Your task to perform on an android device: turn on location history Image 0: 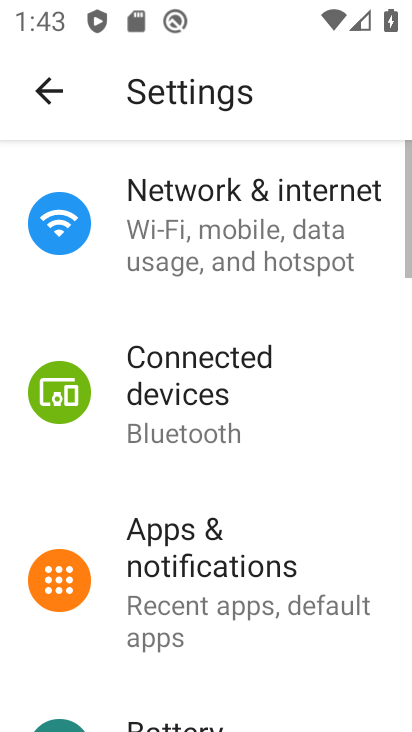
Step 0: drag from (268, 627) to (252, 175)
Your task to perform on an android device: turn on location history Image 1: 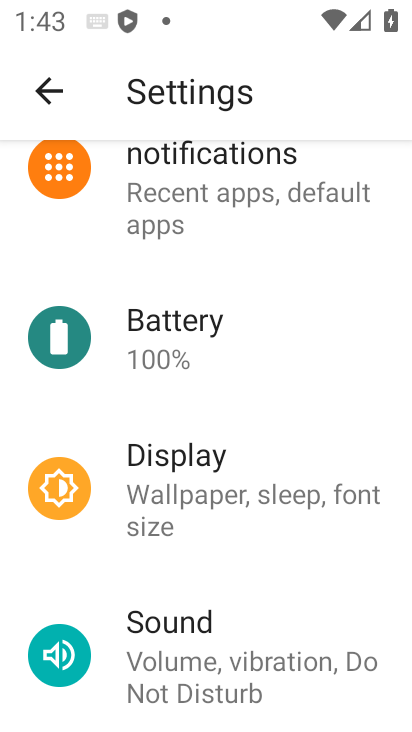
Step 1: drag from (253, 554) to (216, 257)
Your task to perform on an android device: turn on location history Image 2: 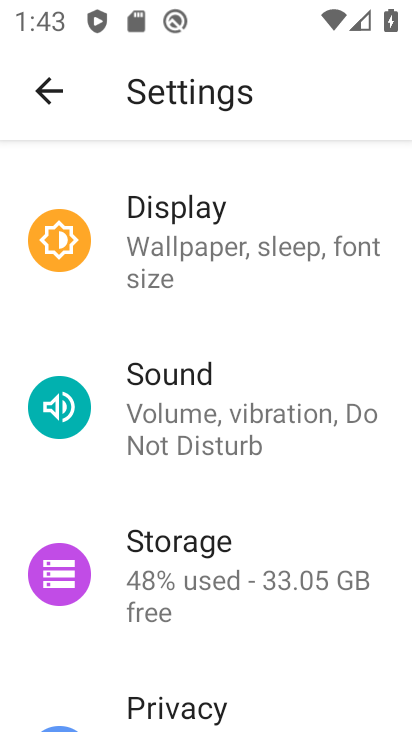
Step 2: drag from (269, 650) to (209, 212)
Your task to perform on an android device: turn on location history Image 3: 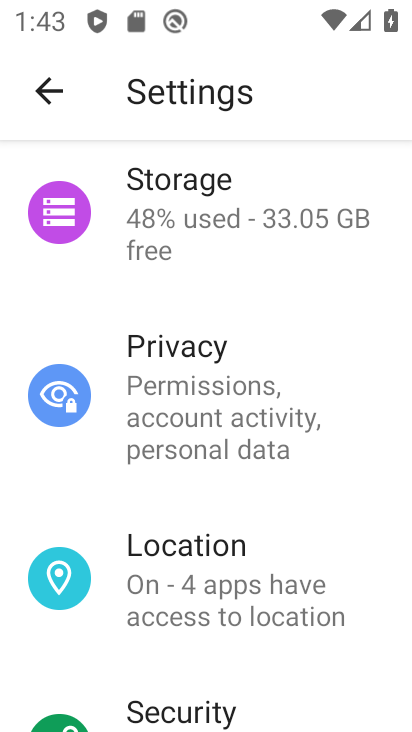
Step 3: click (185, 586)
Your task to perform on an android device: turn on location history Image 4: 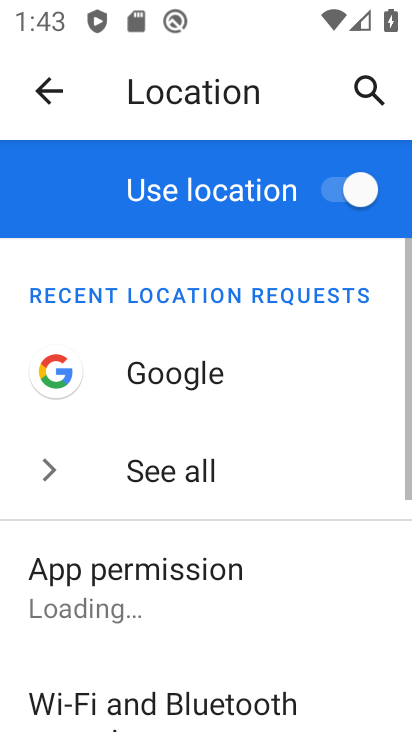
Step 4: drag from (266, 613) to (228, 226)
Your task to perform on an android device: turn on location history Image 5: 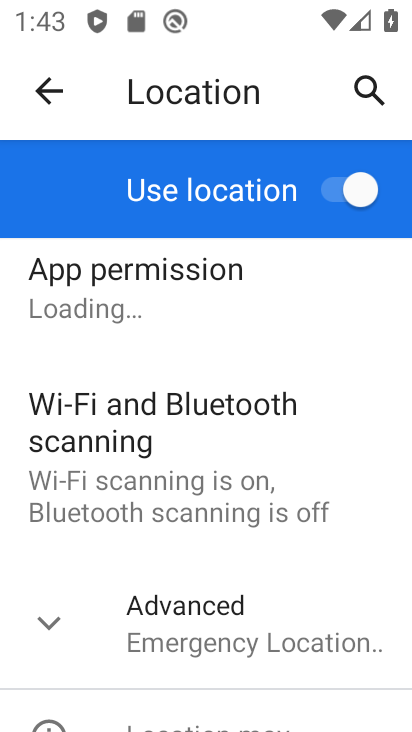
Step 5: click (173, 625)
Your task to perform on an android device: turn on location history Image 6: 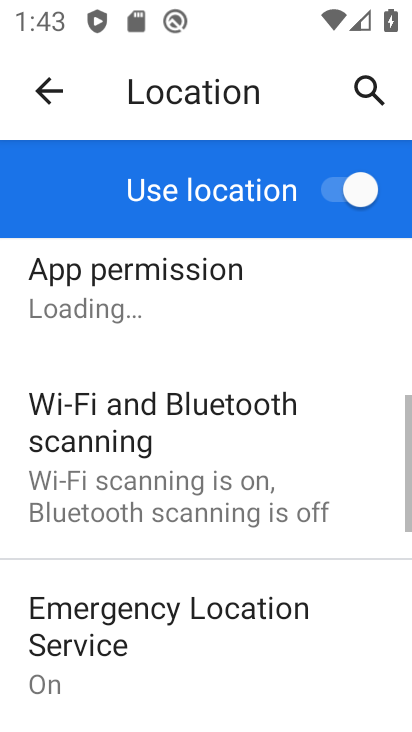
Step 6: drag from (271, 594) to (238, 300)
Your task to perform on an android device: turn on location history Image 7: 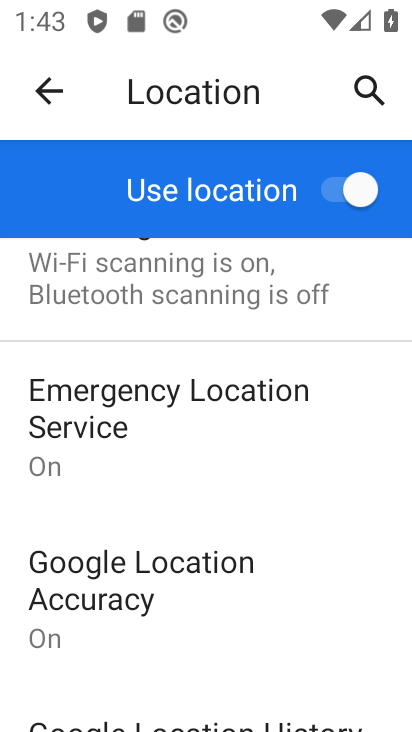
Step 7: drag from (241, 622) to (208, 381)
Your task to perform on an android device: turn on location history Image 8: 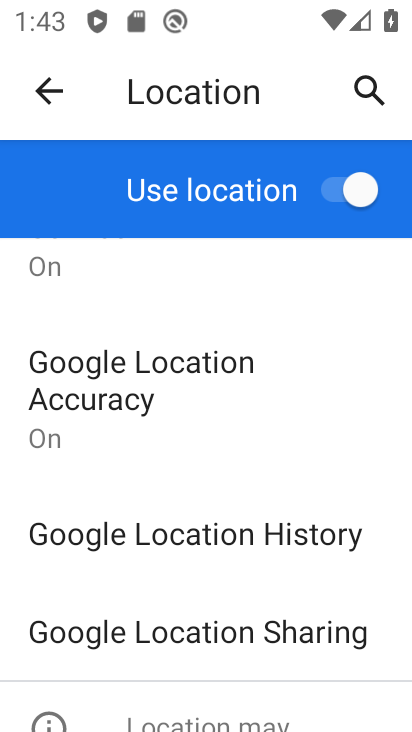
Step 8: click (192, 544)
Your task to perform on an android device: turn on location history Image 9: 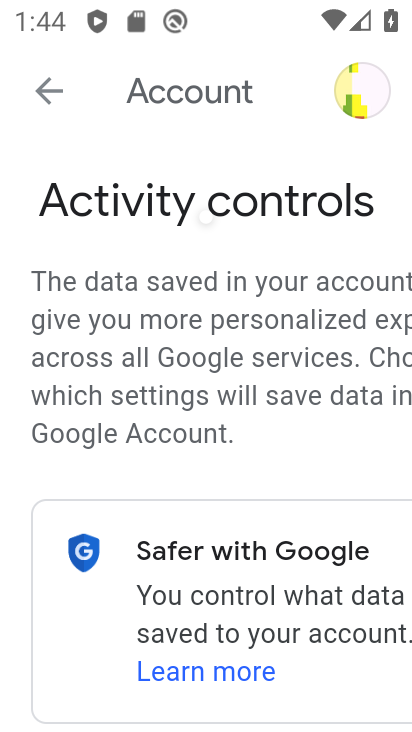
Step 9: drag from (268, 630) to (208, 295)
Your task to perform on an android device: turn on location history Image 10: 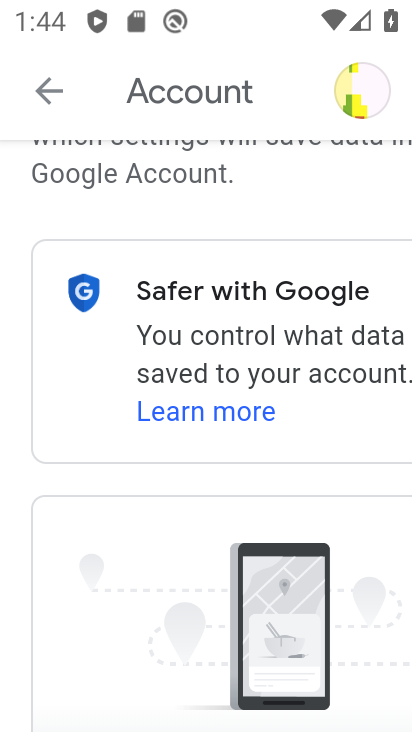
Step 10: drag from (242, 560) to (232, 244)
Your task to perform on an android device: turn on location history Image 11: 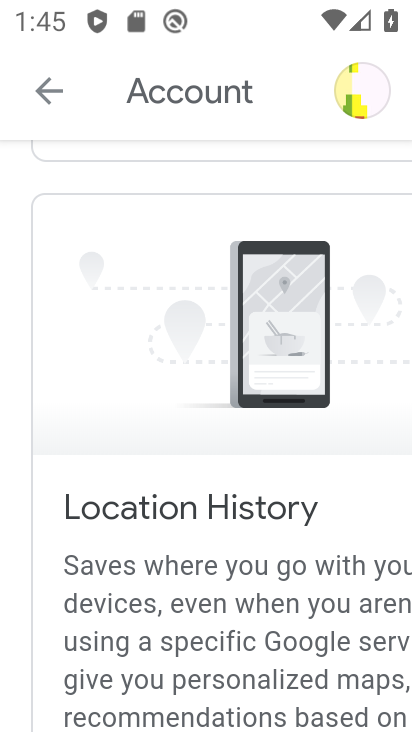
Step 11: drag from (239, 194) to (234, 56)
Your task to perform on an android device: turn on location history Image 12: 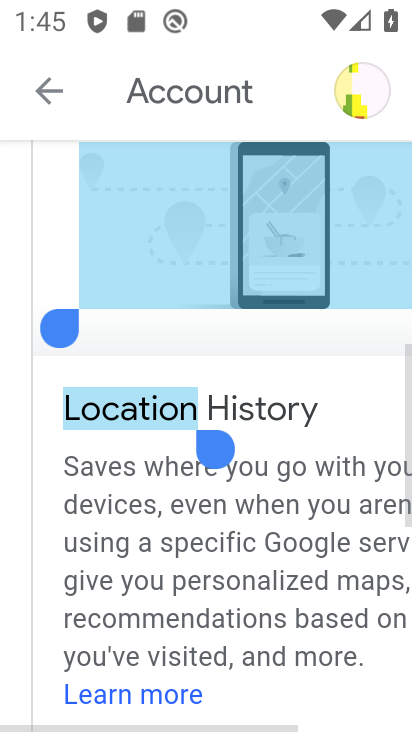
Step 12: drag from (299, 561) to (264, 188)
Your task to perform on an android device: turn on location history Image 13: 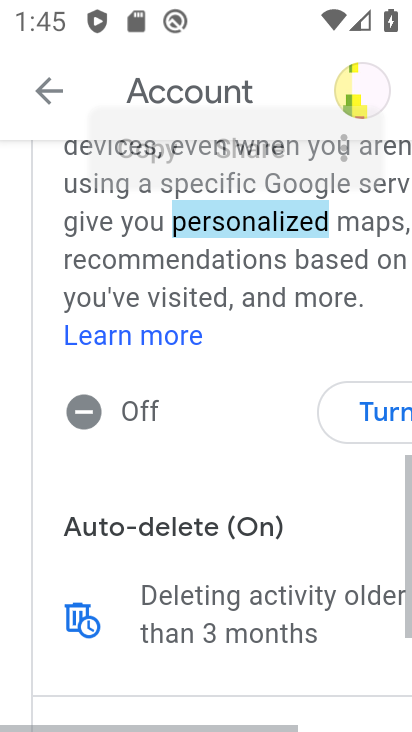
Step 13: drag from (283, 518) to (264, 158)
Your task to perform on an android device: turn on location history Image 14: 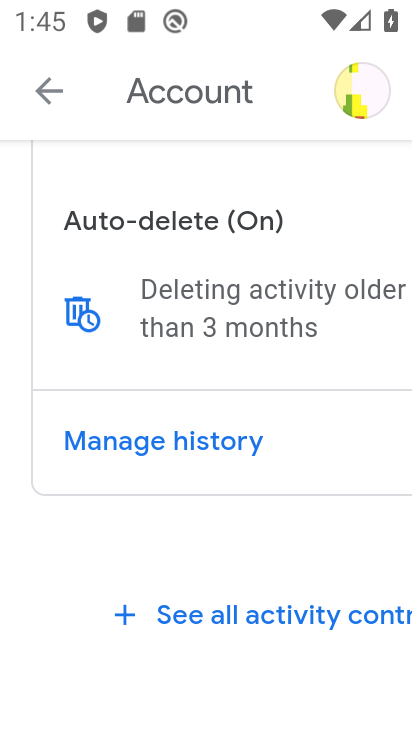
Step 14: drag from (235, 323) to (257, 522)
Your task to perform on an android device: turn on location history Image 15: 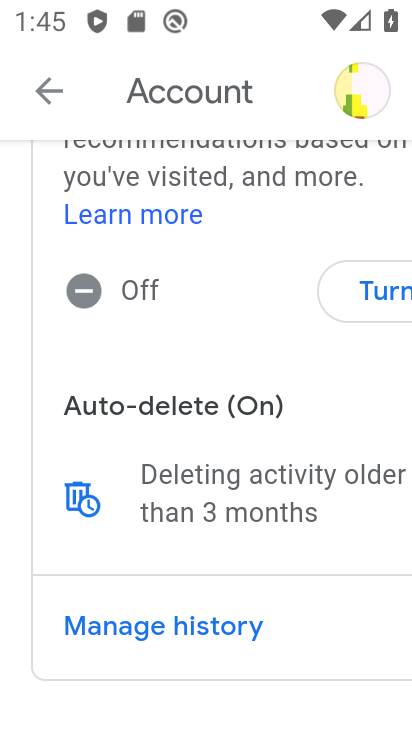
Step 15: click (357, 289)
Your task to perform on an android device: turn on location history Image 16: 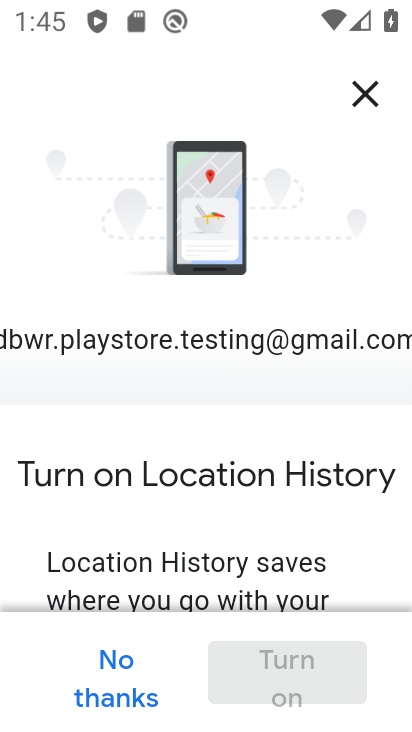
Step 16: drag from (299, 586) to (262, 50)
Your task to perform on an android device: turn on location history Image 17: 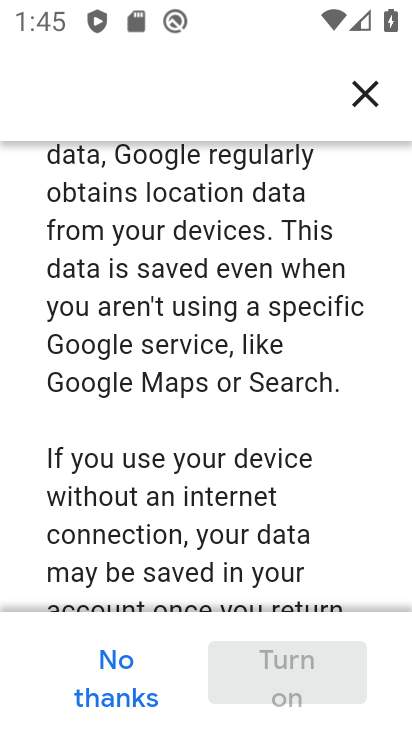
Step 17: drag from (354, 528) to (320, 75)
Your task to perform on an android device: turn on location history Image 18: 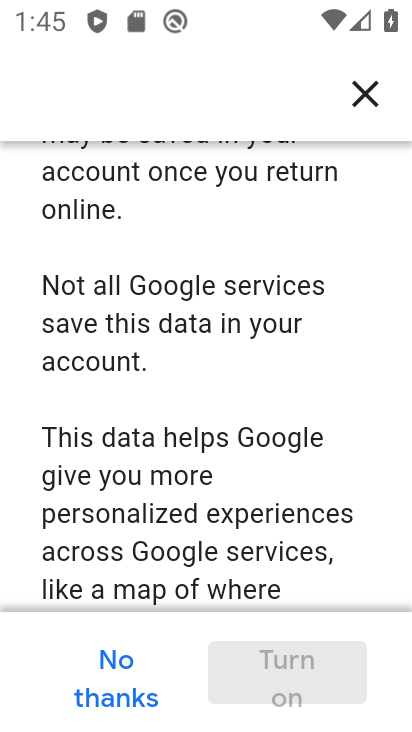
Step 18: drag from (313, 557) to (279, 10)
Your task to perform on an android device: turn on location history Image 19: 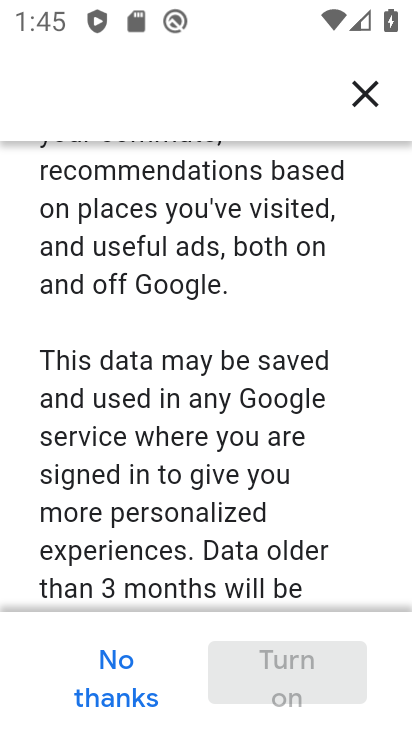
Step 19: drag from (290, 439) to (271, 89)
Your task to perform on an android device: turn on location history Image 20: 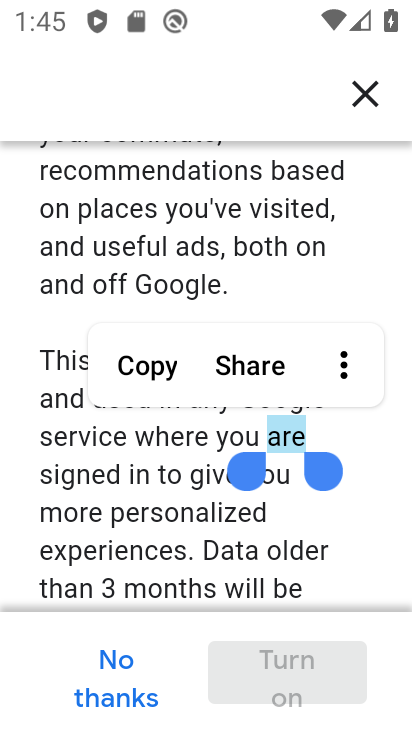
Step 20: drag from (319, 539) to (291, 142)
Your task to perform on an android device: turn on location history Image 21: 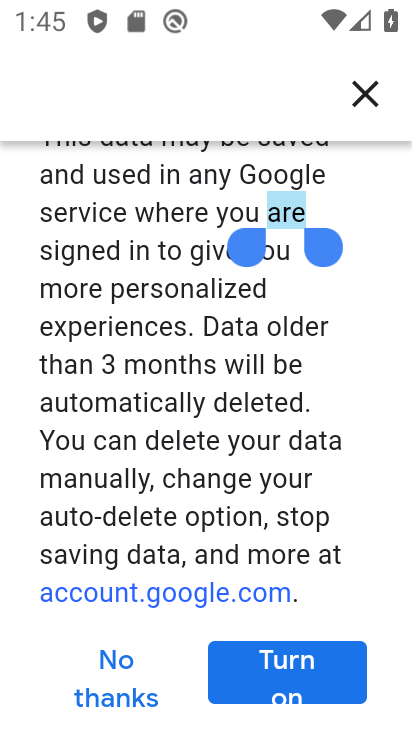
Step 21: drag from (328, 590) to (299, 365)
Your task to perform on an android device: turn on location history Image 22: 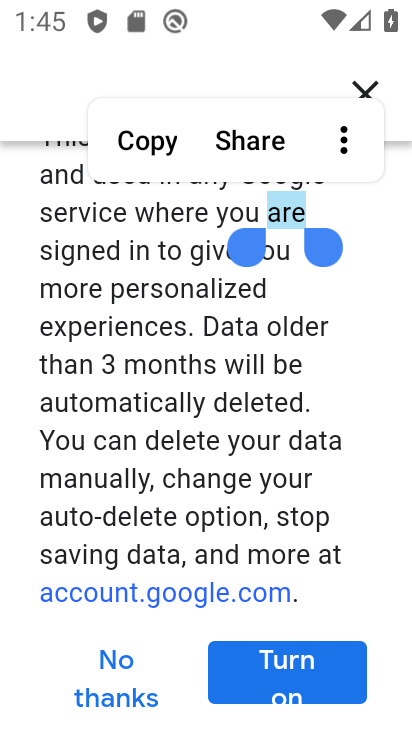
Step 22: click (307, 677)
Your task to perform on an android device: turn on location history Image 23: 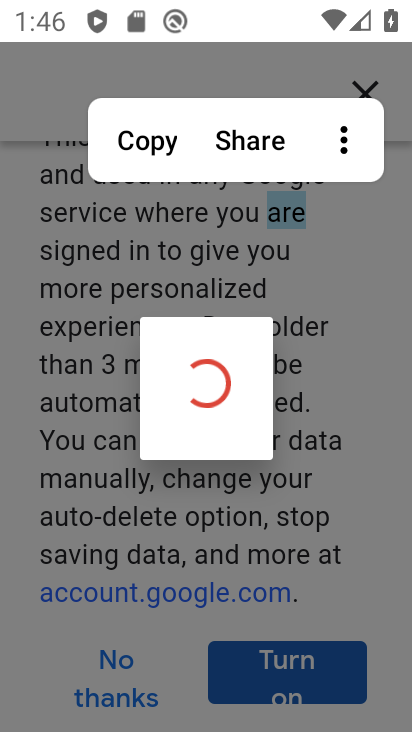
Step 23: click (353, 462)
Your task to perform on an android device: turn on location history Image 24: 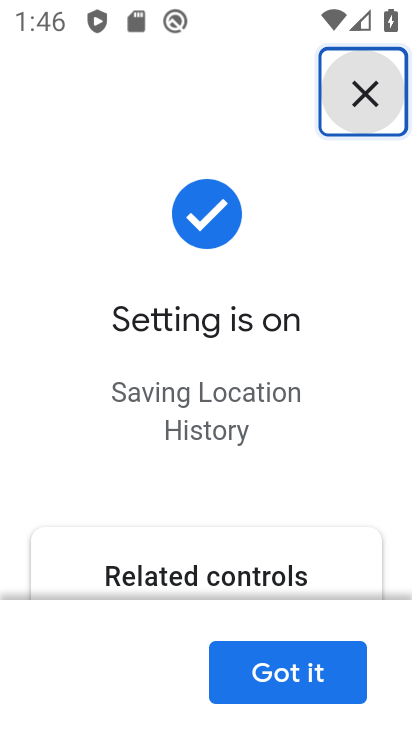
Step 24: task complete